Your task to perform on an android device: Go to Yahoo.com Image 0: 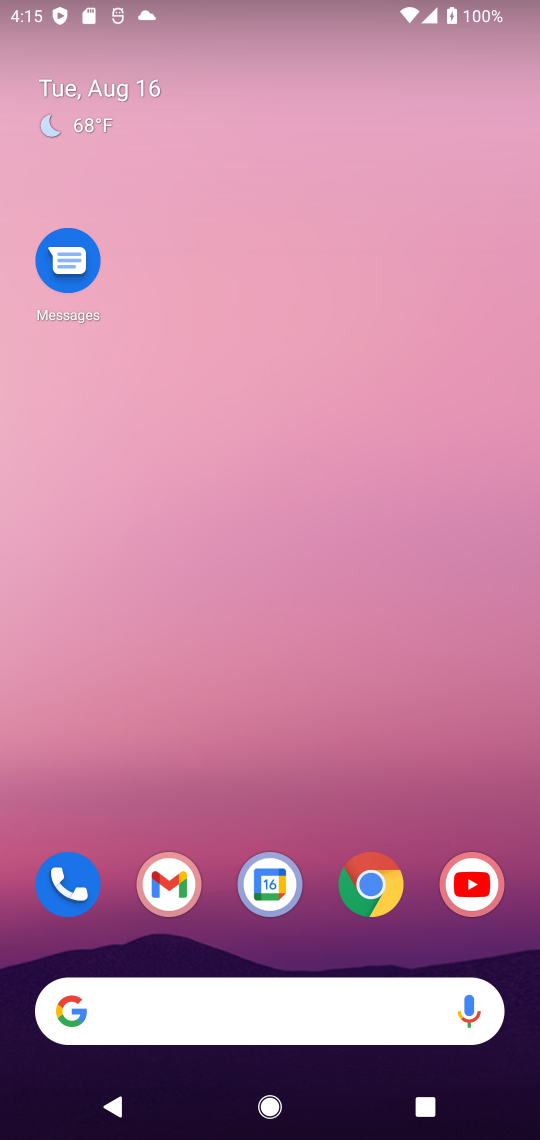
Step 0: click (176, 1004)
Your task to perform on an android device: Go to Yahoo.com Image 1: 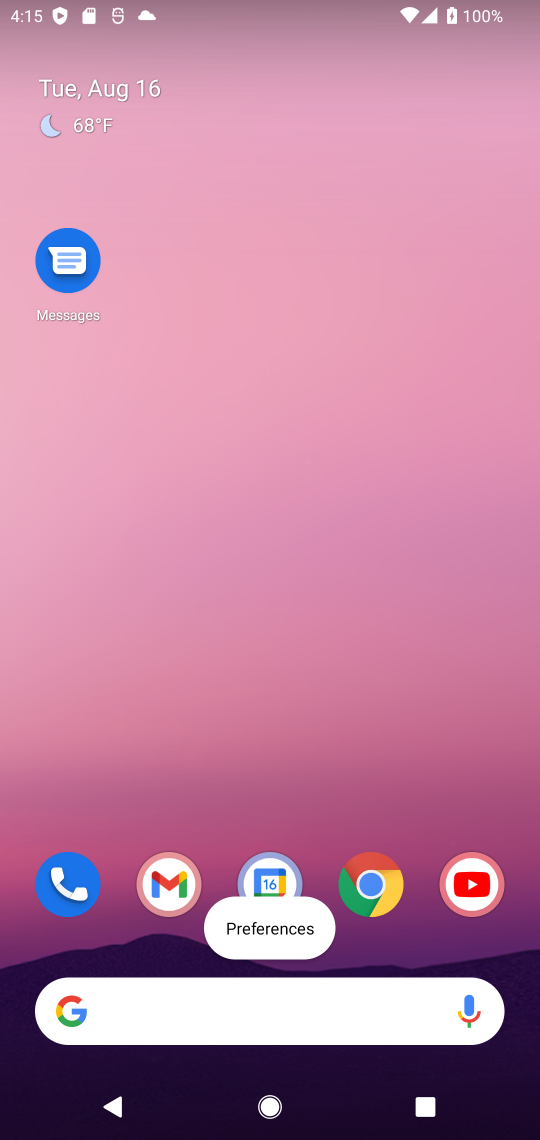
Step 1: click (128, 1025)
Your task to perform on an android device: Go to Yahoo.com Image 2: 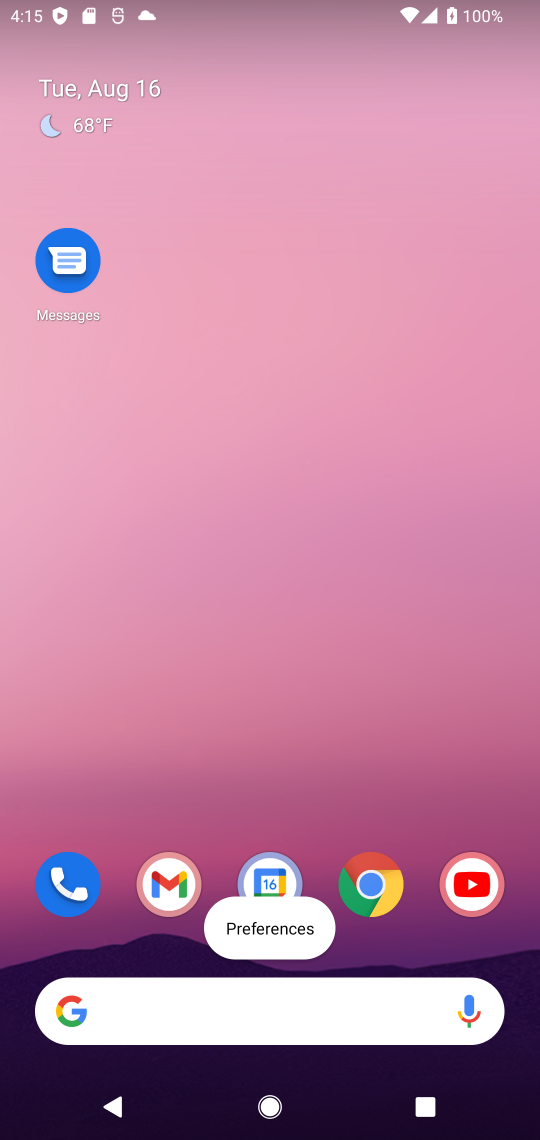
Step 2: task complete